Your task to perform on an android device: Search for Mexican restaurants on Maps Image 0: 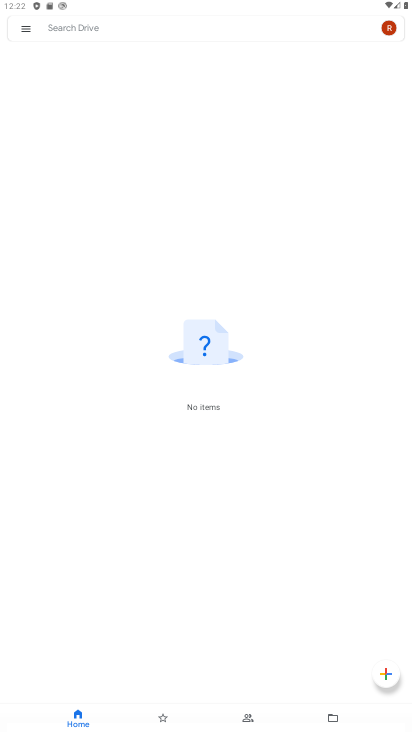
Step 0: press home button
Your task to perform on an android device: Search for Mexican restaurants on Maps Image 1: 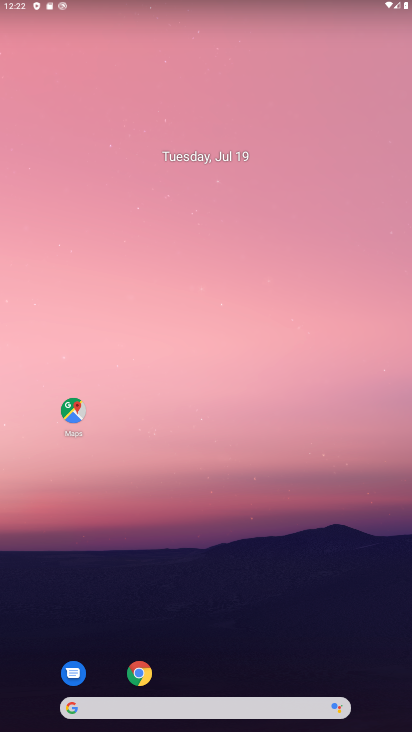
Step 1: click (78, 423)
Your task to perform on an android device: Search for Mexican restaurants on Maps Image 2: 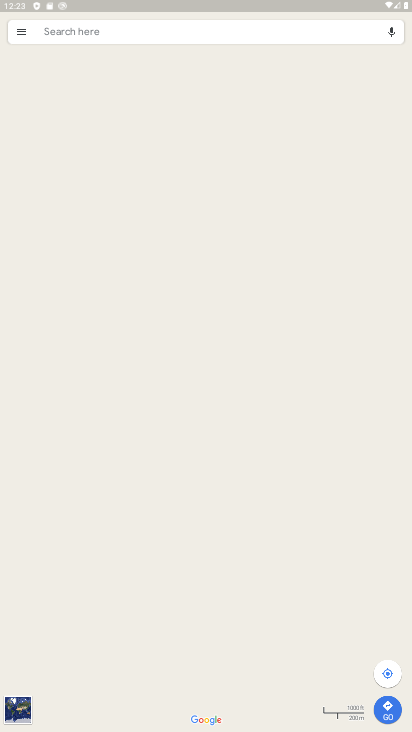
Step 2: click (142, 35)
Your task to perform on an android device: Search for Mexican restaurants on Maps Image 3: 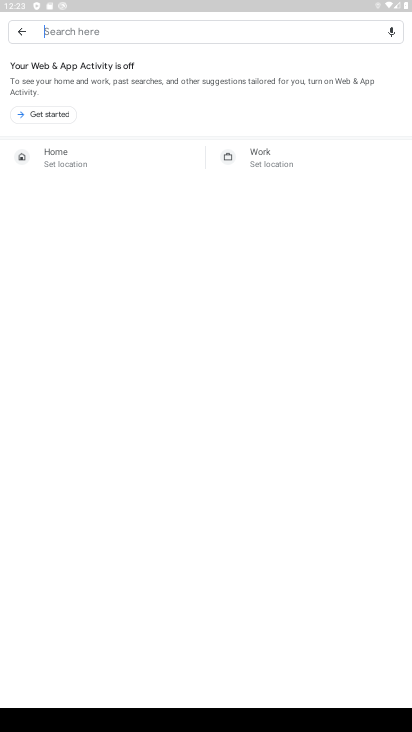
Step 3: type "Mexican restaurants"
Your task to perform on an android device: Search for Mexican restaurants on Maps Image 4: 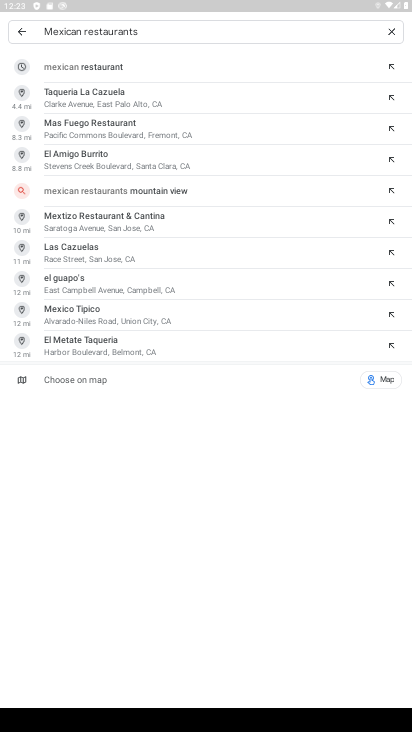
Step 4: click (302, 62)
Your task to perform on an android device: Search for Mexican restaurants on Maps Image 5: 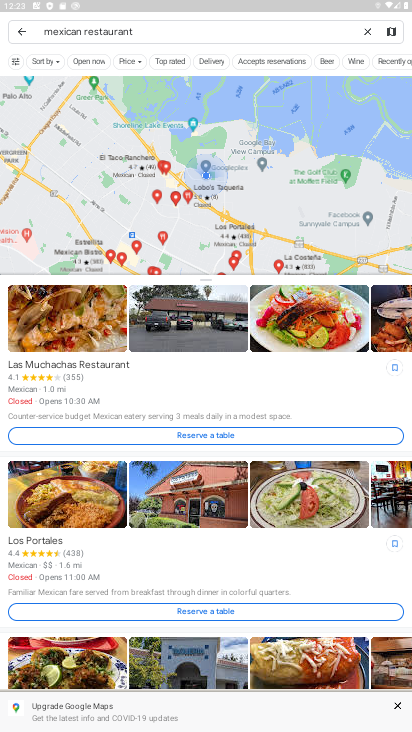
Step 5: task complete